Your task to perform on an android device: Go to calendar. Show me events next week Image 0: 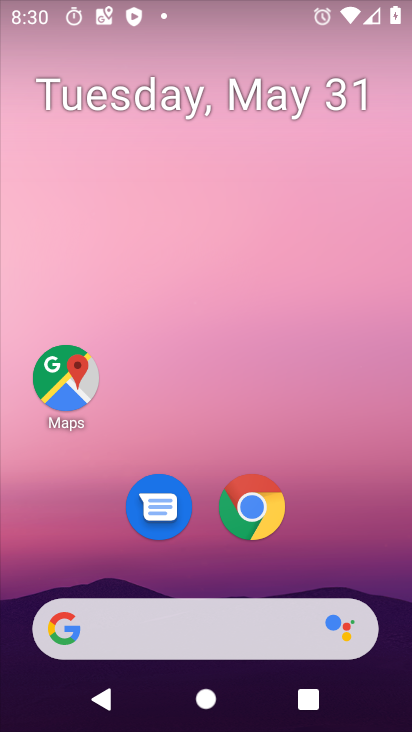
Step 0: drag from (356, 587) to (364, 5)
Your task to perform on an android device: Go to calendar. Show me events next week Image 1: 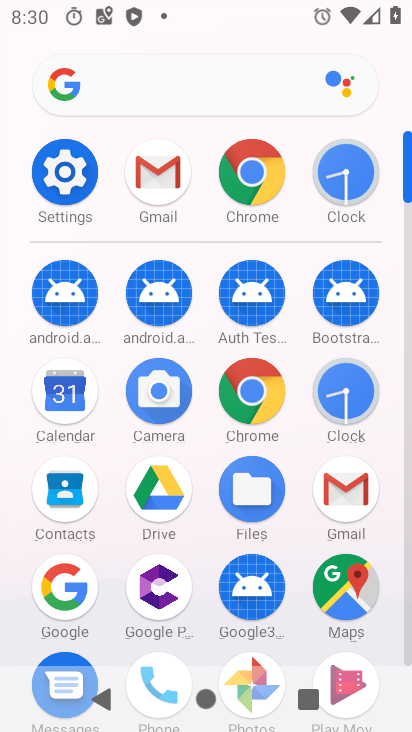
Step 1: click (67, 387)
Your task to perform on an android device: Go to calendar. Show me events next week Image 2: 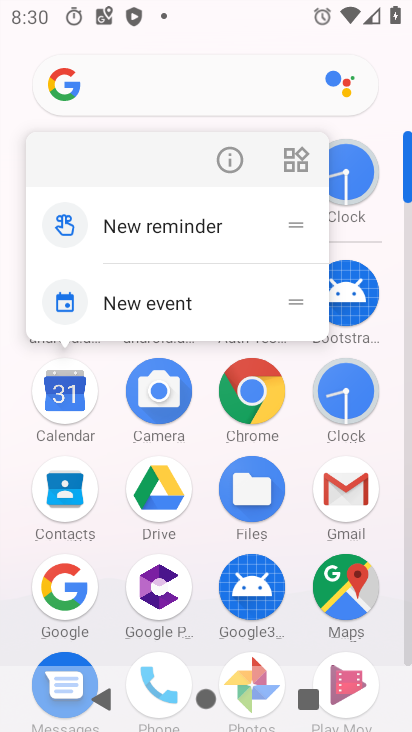
Step 2: click (61, 398)
Your task to perform on an android device: Go to calendar. Show me events next week Image 3: 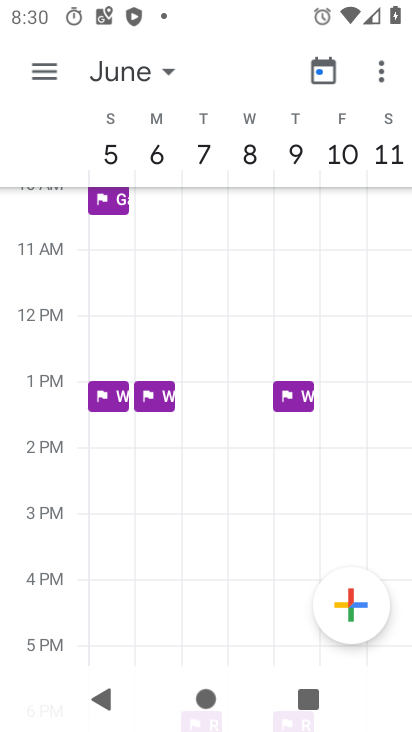
Step 3: task complete